Your task to perform on an android device: Open Google Chrome and open the bookmarks view Image 0: 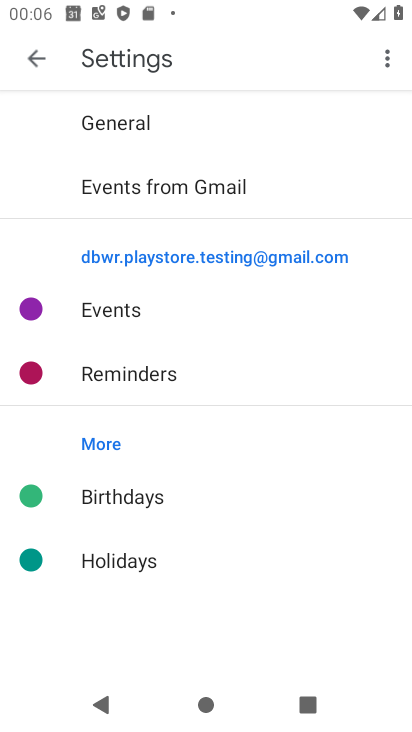
Step 0: press home button
Your task to perform on an android device: Open Google Chrome and open the bookmarks view Image 1: 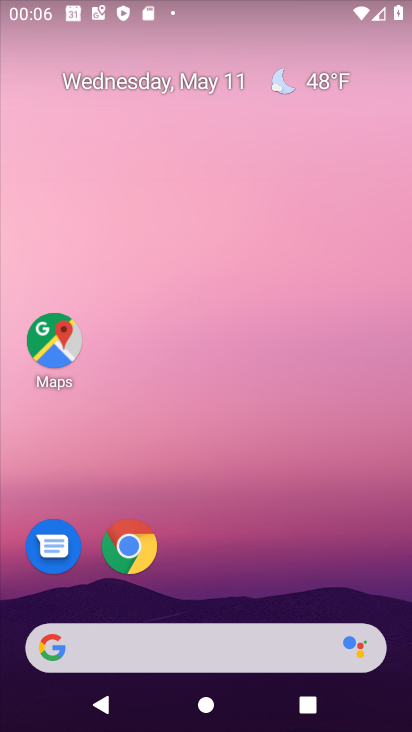
Step 1: click (118, 530)
Your task to perform on an android device: Open Google Chrome and open the bookmarks view Image 2: 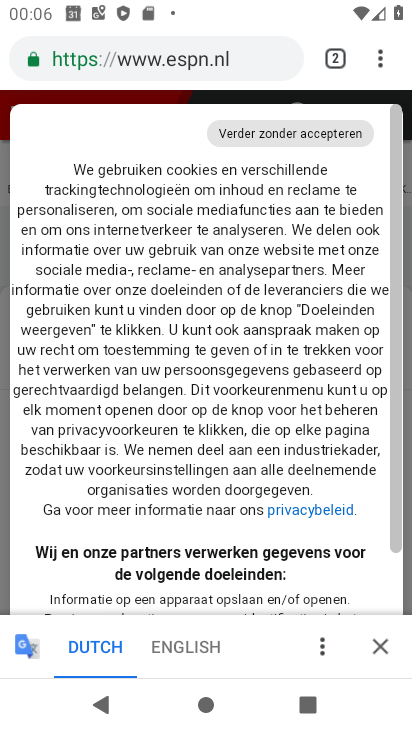
Step 2: click (370, 62)
Your task to perform on an android device: Open Google Chrome and open the bookmarks view Image 3: 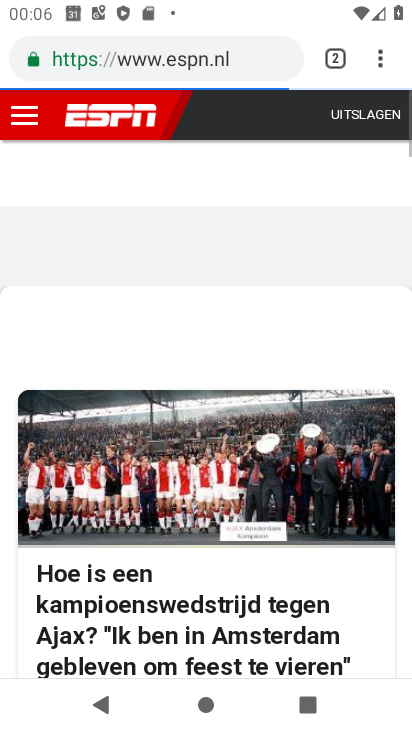
Step 3: click (380, 64)
Your task to perform on an android device: Open Google Chrome and open the bookmarks view Image 4: 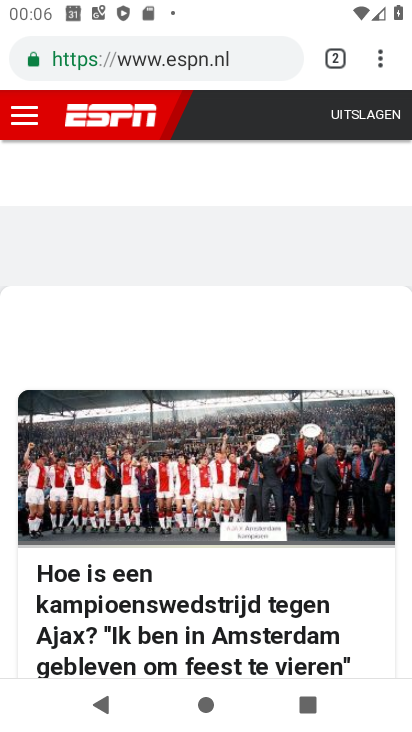
Step 4: task complete